Your task to perform on an android device: Open the web browser Image 0: 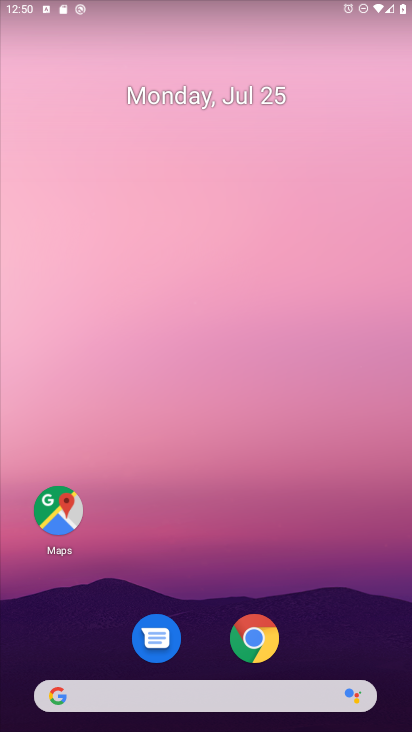
Step 0: click (190, 686)
Your task to perform on an android device: Open the web browser Image 1: 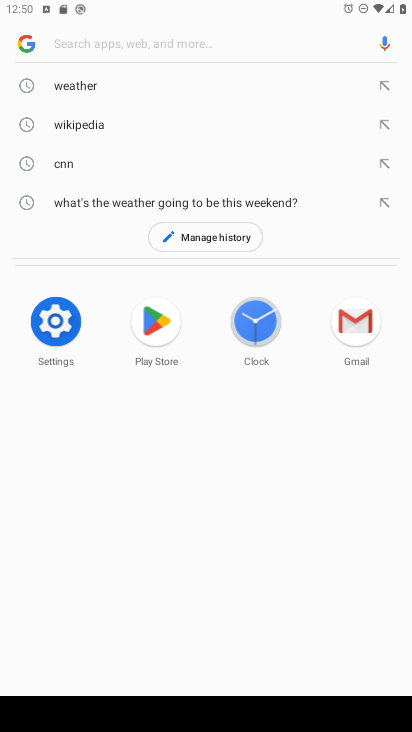
Step 1: task complete